Your task to perform on an android device: Open accessibility settings Image 0: 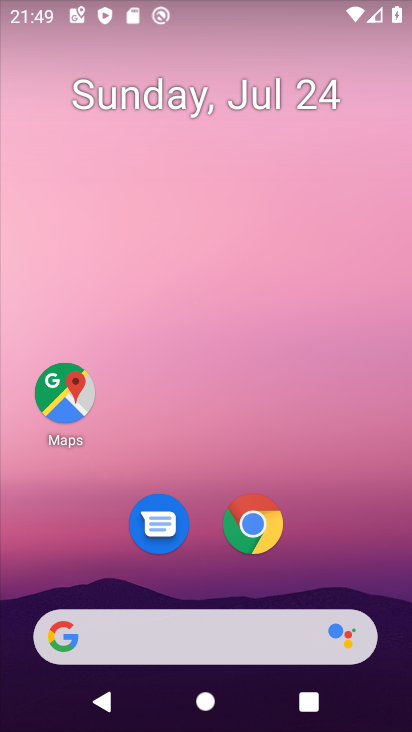
Step 0: press home button
Your task to perform on an android device: Open accessibility settings Image 1: 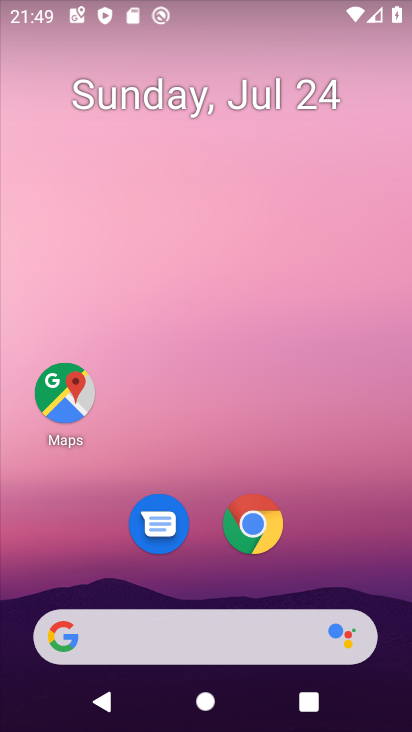
Step 1: drag from (167, 642) to (347, 46)
Your task to perform on an android device: Open accessibility settings Image 2: 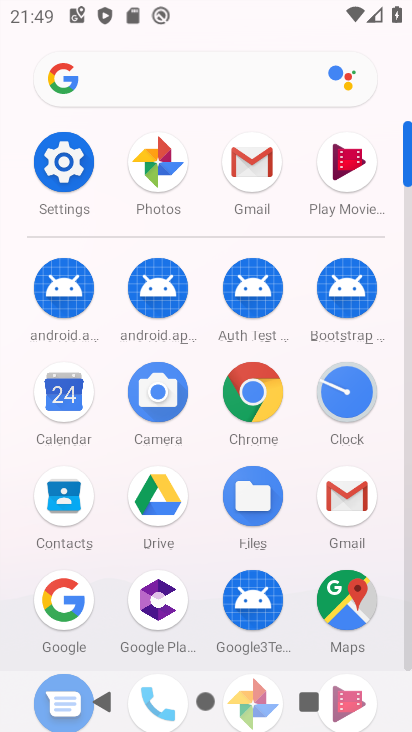
Step 2: click (62, 155)
Your task to perform on an android device: Open accessibility settings Image 3: 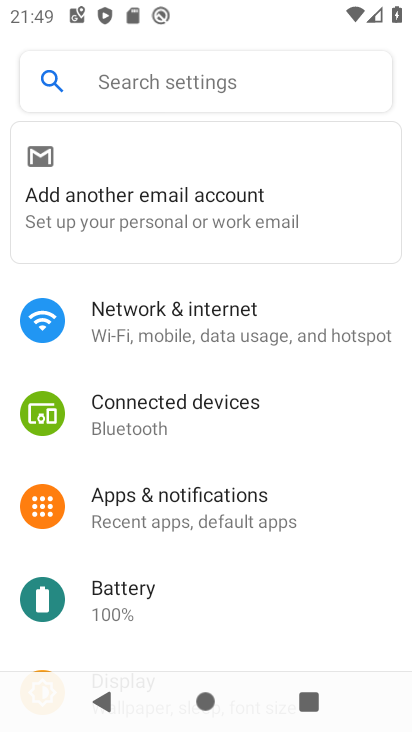
Step 3: drag from (208, 612) to (309, 2)
Your task to perform on an android device: Open accessibility settings Image 4: 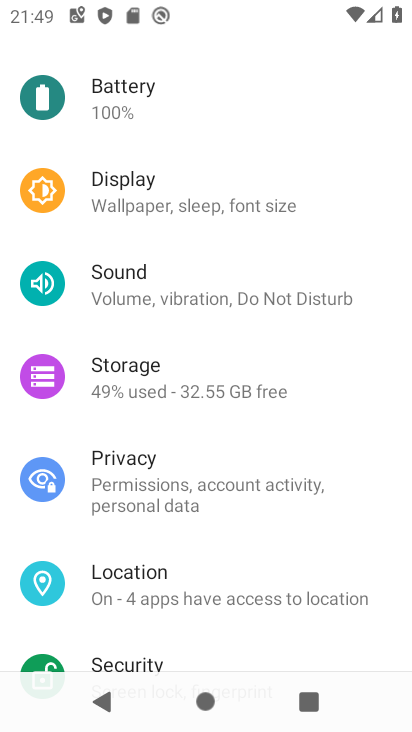
Step 4: drag from (205, 552) to (336, 96)
Your task to perform on an android device: Open accessibility settings Image 5: 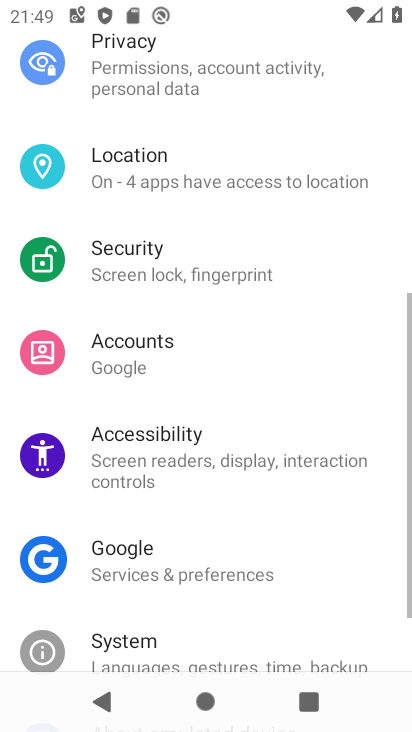
Step 5: click (118, 494)
Your task to perform on an android device: Open accessibility settings Image 6: 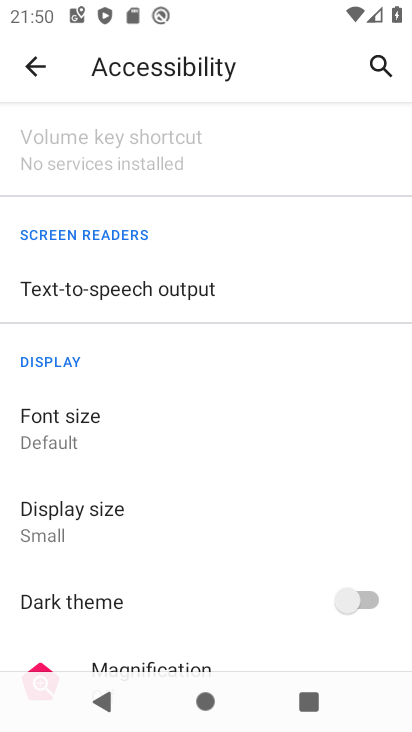
Step 6: task complete